Your task to perform on an android device: Show me popular videos on Youtube Image 0: 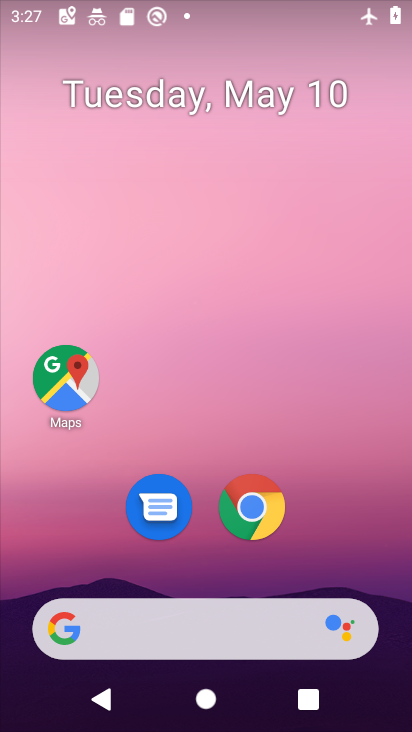
Step 0: drag from (197, 566) to (238, 226)
Your task to perform on an android device: Show me popular videos on Youtube Image 1: 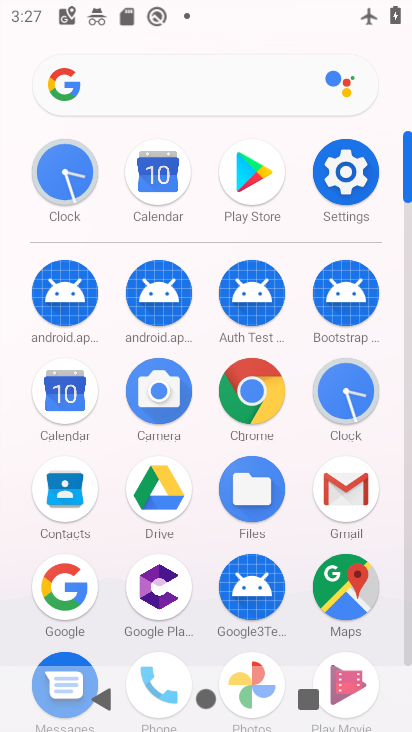
Step 1: drag from (202, 634) to (187, 344)
Your task to perform on an android device: Show me popular videos on Youtube Image 2: 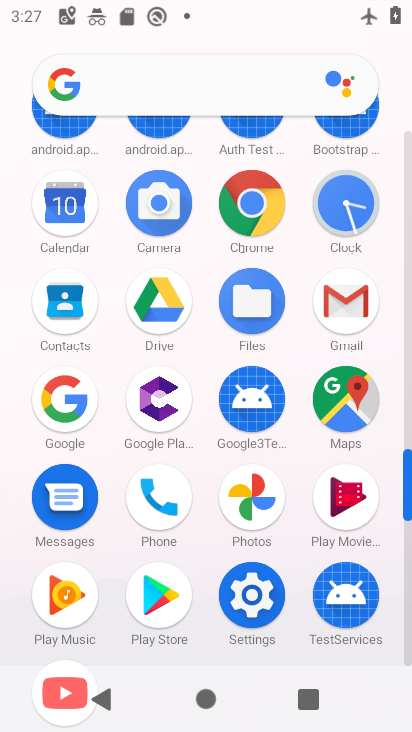
Step 2: click (57, 662)
Your task to perform on an android device: Show me popular videos on Youtube Image 3: 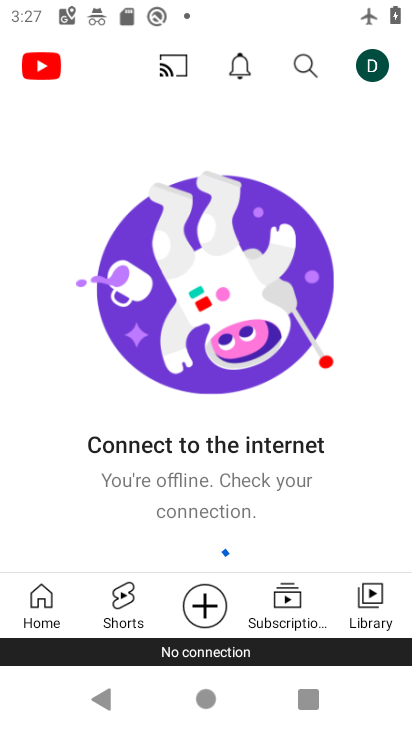
Step 3: click (304, 60)
Your task to perform on an android device: Show me popular videos on Youtube Image 4: 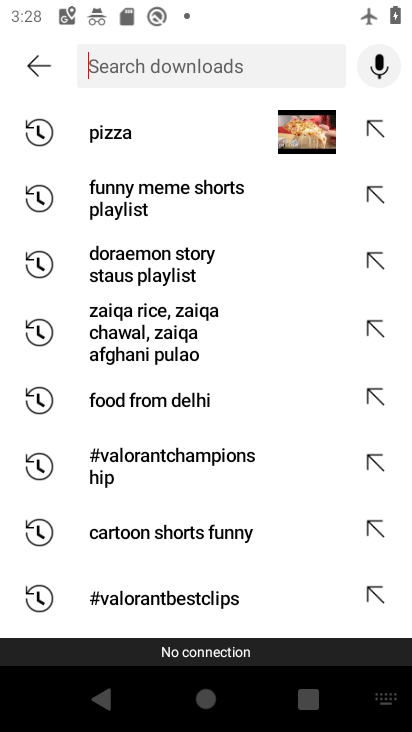
Step 4: type "popular videos"
Your task to perform on an android device: Show me popular videos on Youtube Image 5: 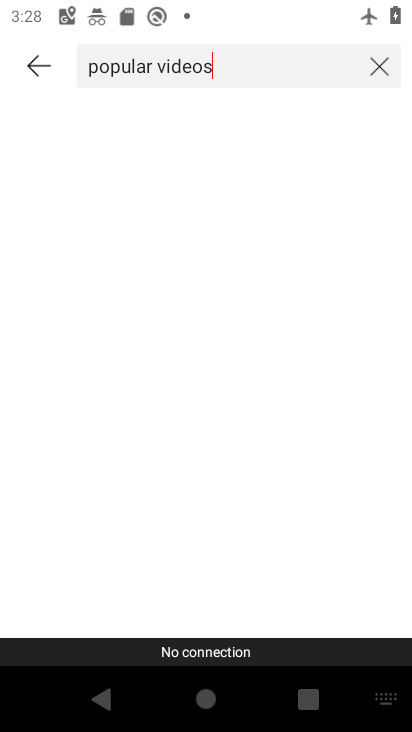
Step 5: task complete